Your task to perform on an android device: change timer sound Image 0: 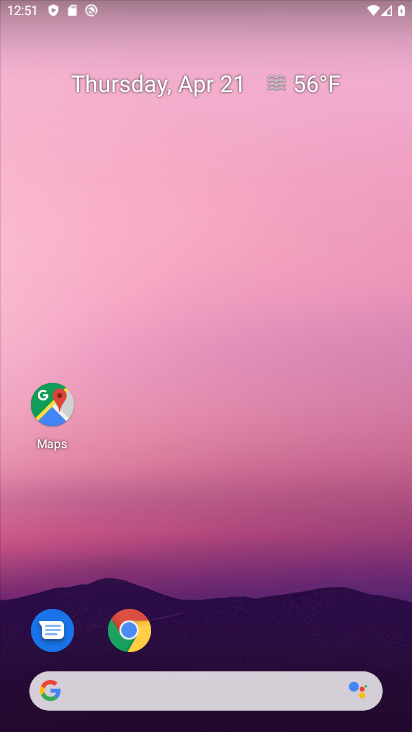
Step 0: drag from (219, 678) to (160, 138)
Your task to perform on an android device: change timer sound Image 1: 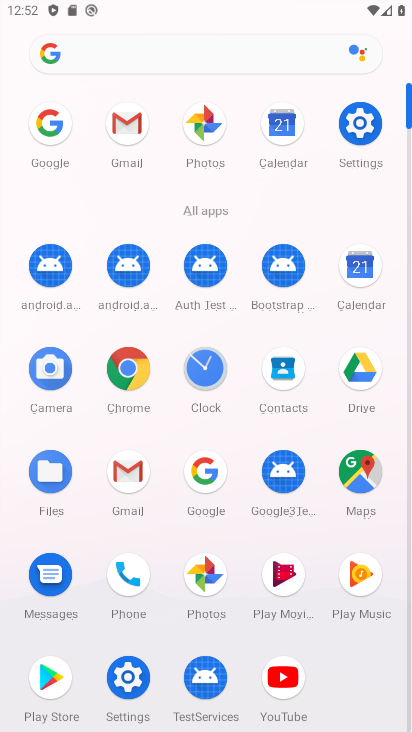
Step 1: click (202, 373)
Your task to perform on an android device: change timer sound Image 2: 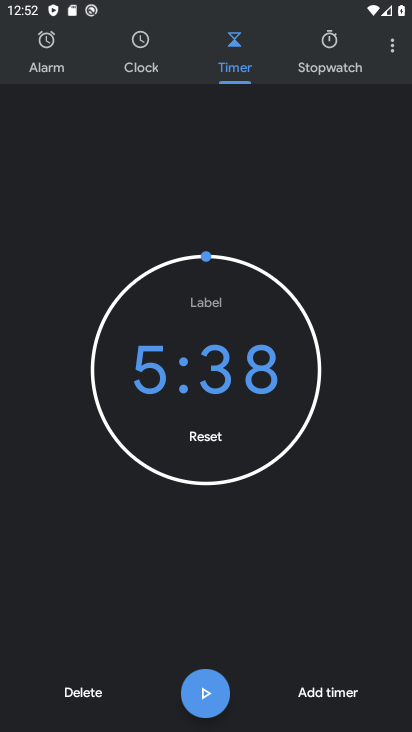
Step 2: drag from (396, 54) to (305, 289)
Your task to perform on an android device: change timer sound Image 3: 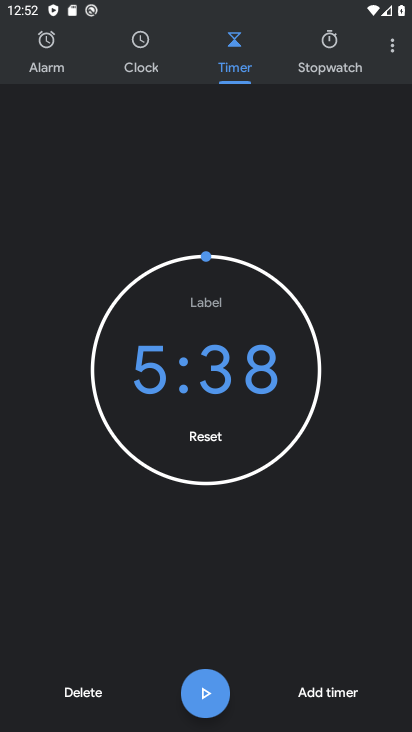
Step 3: click (265, 86)
Your task to perform on an android device: change timer sound Image 4: 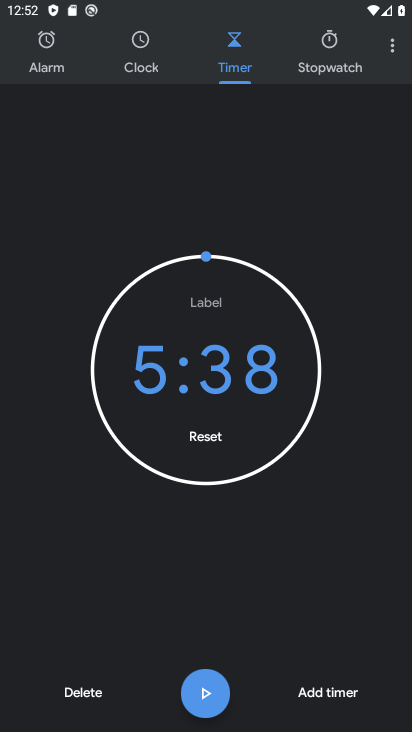
Step 4: click (389, 49)
Your task to perform on an android device: change timer sound Image 5: 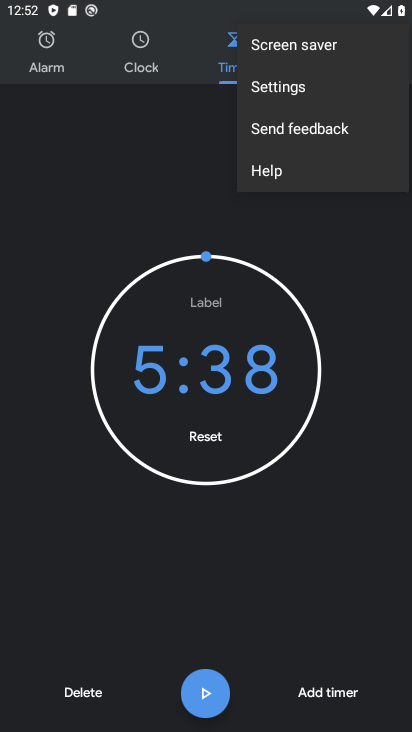
Step 5: click (322, 81)
Your task to perform on an android device: change timer sound Image 6: 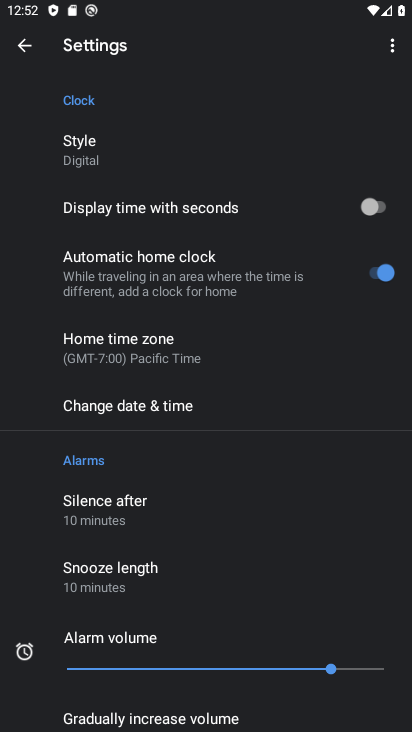
Step 6: drag from (187, 560) to (217, 120)
Your task to perform on an android device: change timer sound Image 7: 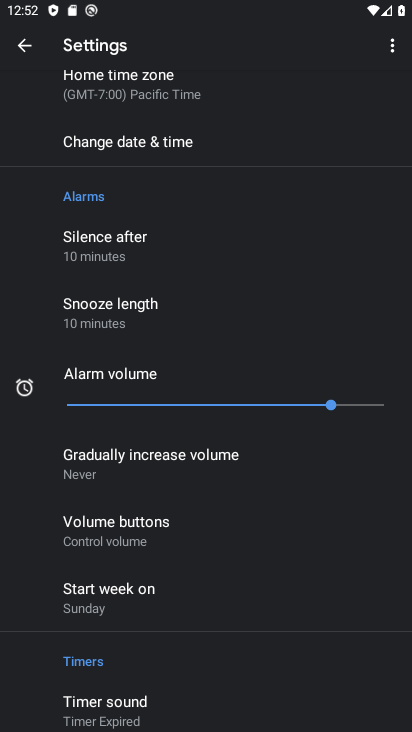
Step 7: drag from (204, 607) to (164, 127)
Your task to perform on an android device: change timer sound Image 8: 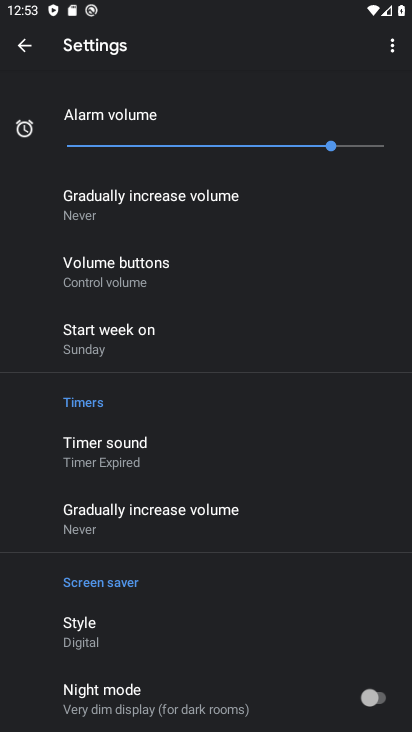
Step 8: click (148, 438)
Your task to perform on an android device: change timer sound Image 9: 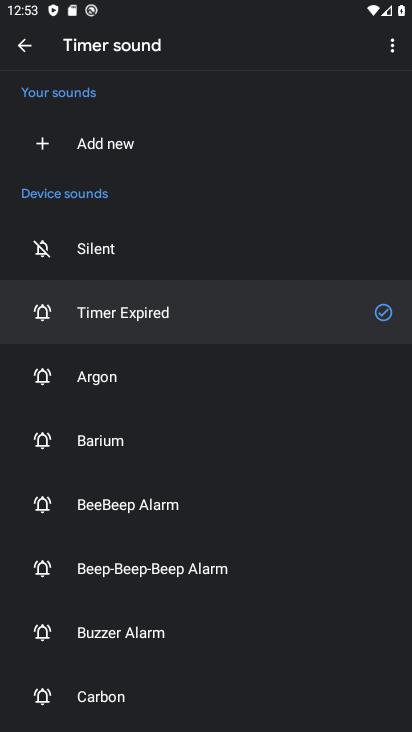
Step 9: click (120, 433)
Your task to perform on an android device: change timer sound Image 10: 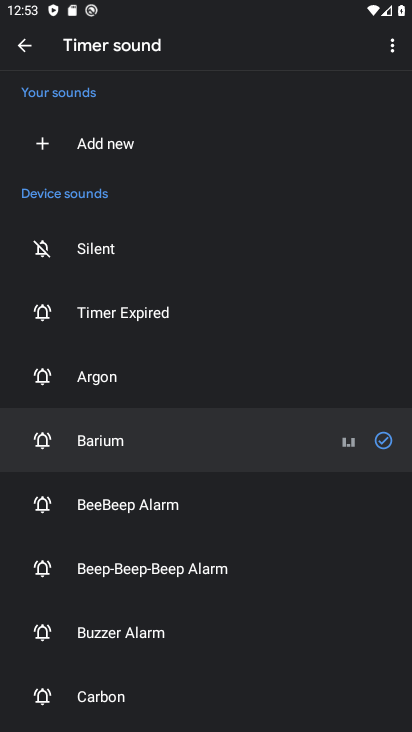
Step 10: task complete